Your task to perform on an android device: star an email in the gmail app Image 0: 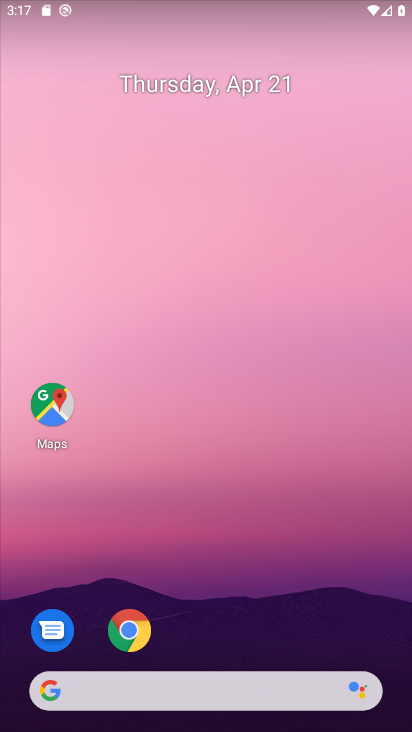
Step 0: drag from (186, 610) to (203, 161)
Your task to perform on an android device: star an email in the gmail app Image 1: 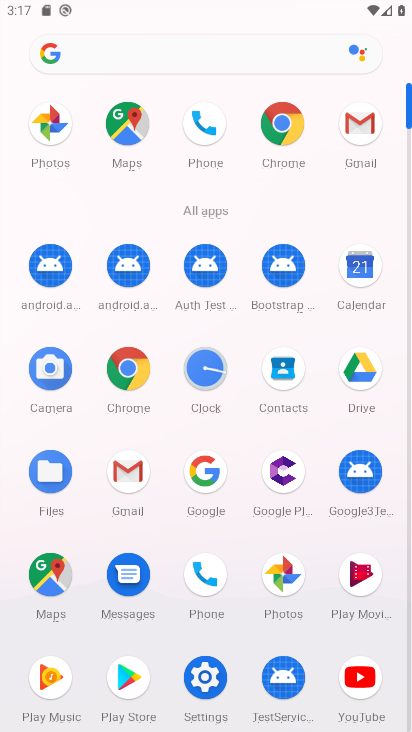
Step 1: click (115, 470)
Your task to perform on an android device: star an email in the gmail app Image 2: 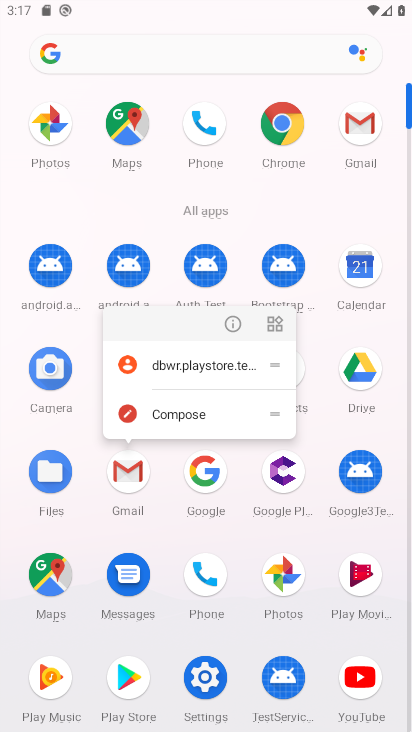
Step 2: click (232, 318)
Your task to perform on an android device: star an email in the gmail app Image 3: 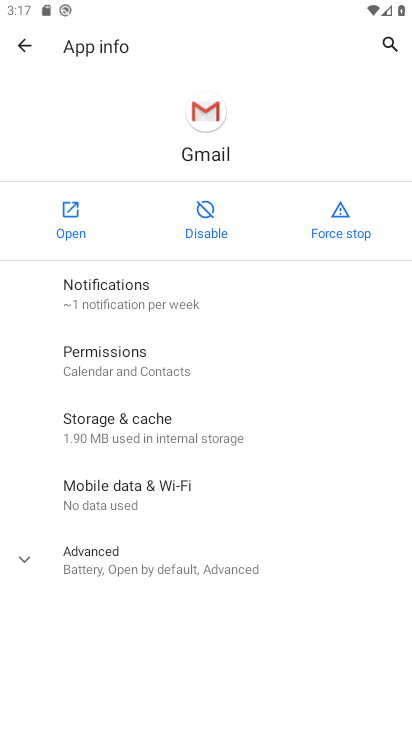
Step 3: click (61, 226)
Your task to perform on an android device: star an email in the gmail app Image 4: 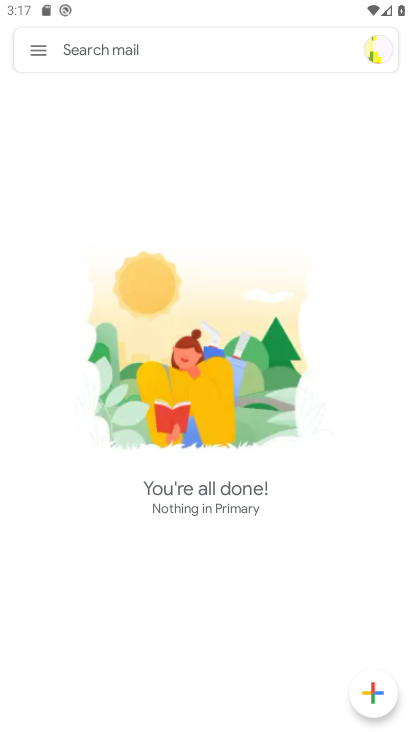
Step 4: drag from (204, 528) to (212, 150)
Your task to perform on an android device: star an email in the gmail app Image 5: 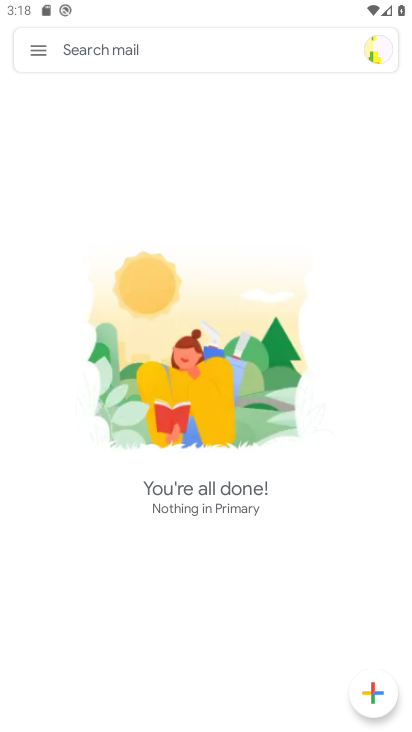
Step 5: click (212, 150)
Your task to perform on an android device: star an email in the gmail app Image 6: 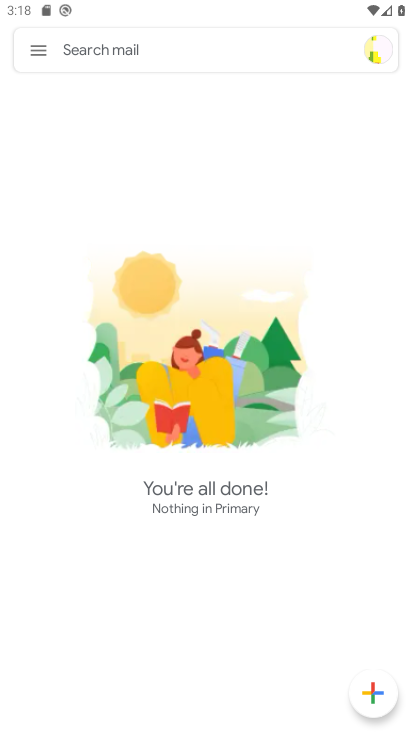
Step 6: click (36, 50)
Your task to perform on an android device: star an email in the gmail app Image 7: 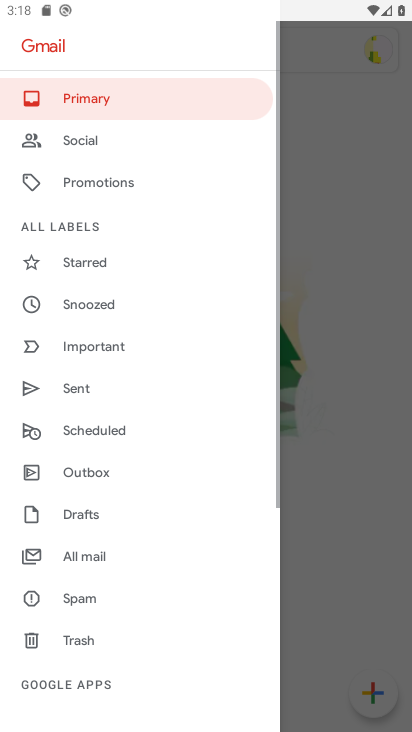
Step 7: drag from (187, 328) to (248, 93)
Your task to perform on an android device: star an email in the gmail app Image 8: 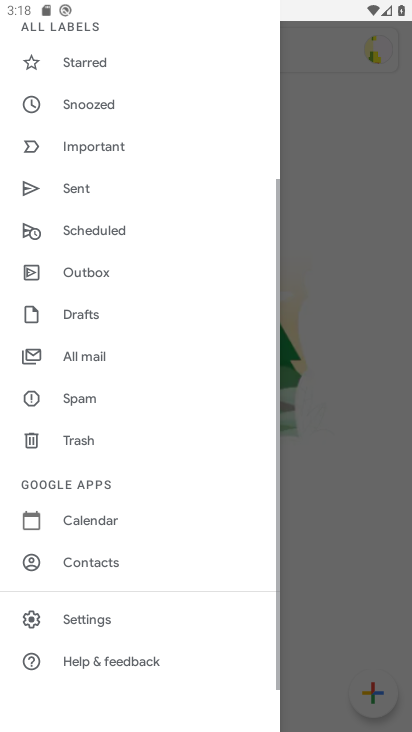
Step 8: drag from (81, 511) to (112, 284)
Your task to perform on an android device: star an email in the gmail app Image 9: 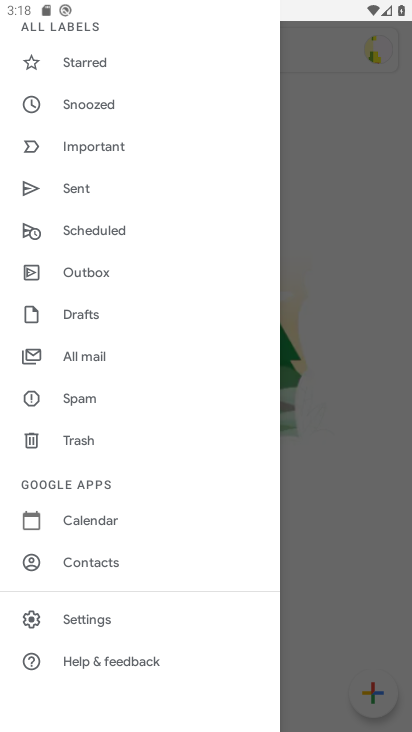
Step 9: drag from (149, 136) to (212, 596)
Your task to perform on an android device: star an email in the gmail app Image 10: 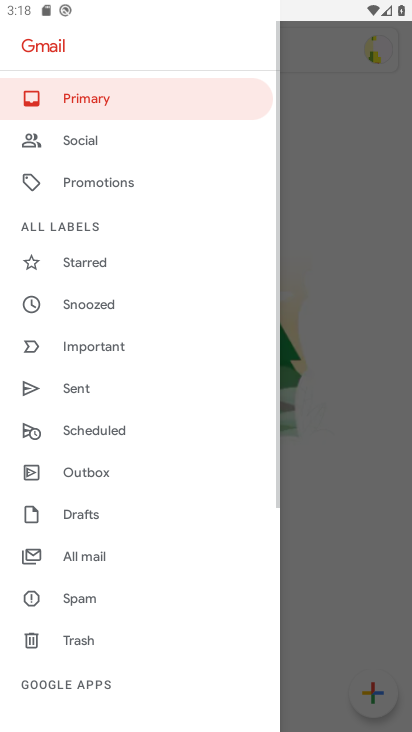
Step 10: click (109, 238)
Your task to perform on an android device: star an email in the gmail app Image 11: 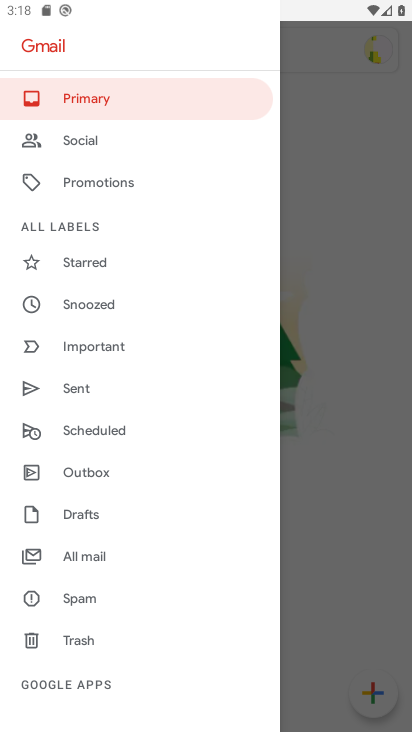
Step 11: click (104, 242)
Your task to perform on an android device: star an email in the gmail app Image 12: 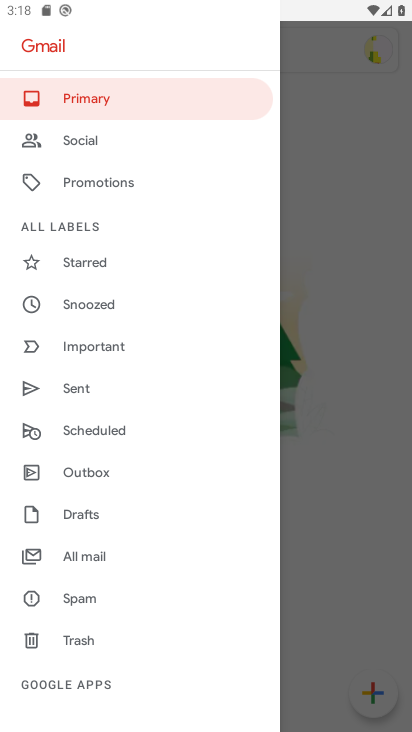
Step 12: click (114, 252)
Your task to perform on an android device: star an email in the gmail app Image 13: 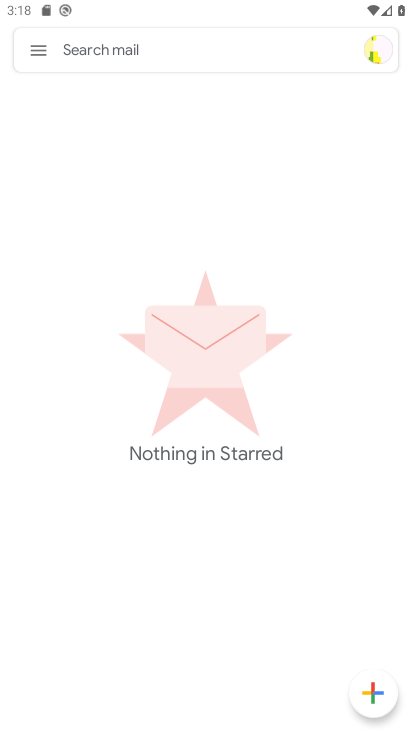
Step 13: drag from (153, 298) to (271, 649)
Your task to perform on an android device: star an email in the gmail app Image 14: 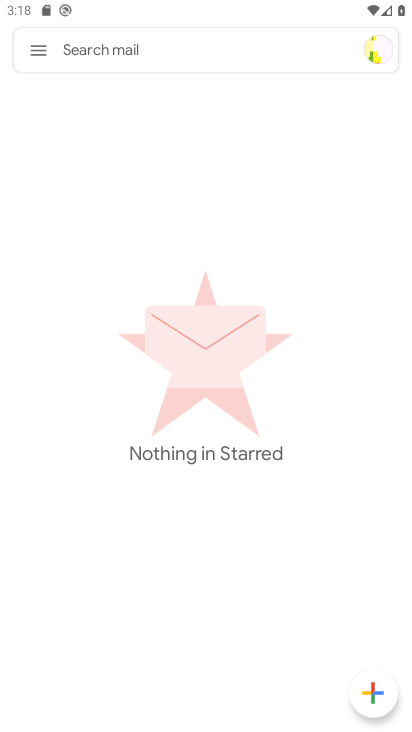
Step 14: drag from (219, 535) to (255, 157)
Your task to perform on an android device: star an email in the gmail app Image 15: 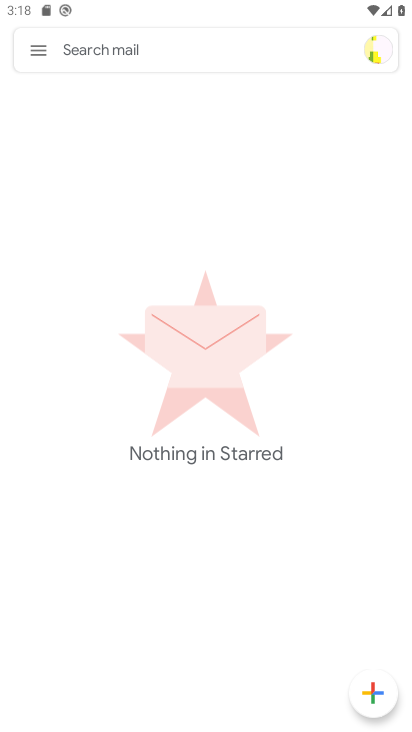
Step 15: drag from (189, 341) to (253, 728)
Your task to perform on an android device: star an email in the gmail app Image 16: 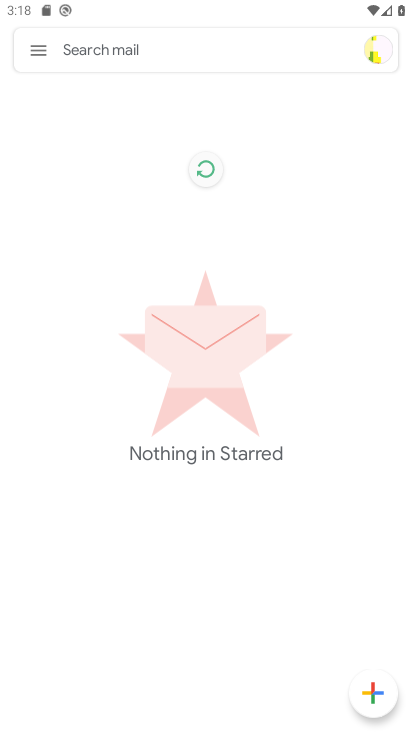
Step 16: drag from (280, 529) to (349, 529)
Your task to perform on an android device: star an email in the gmail app Image 17: 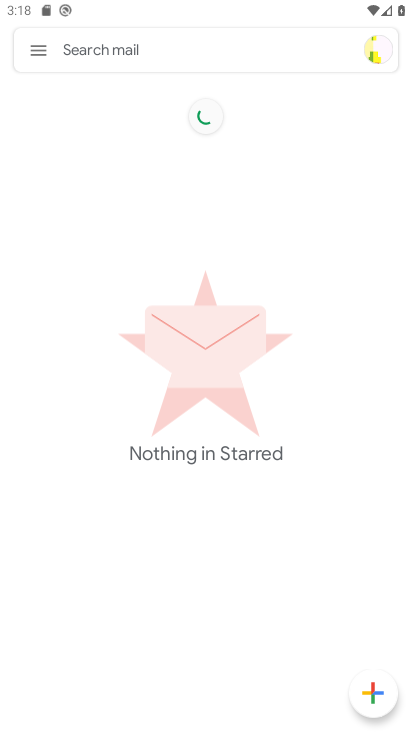
Step 17: drag from (169, 333) to (280, 496)
Your task to perform on an android device: star an email in the gmail app Image 18: 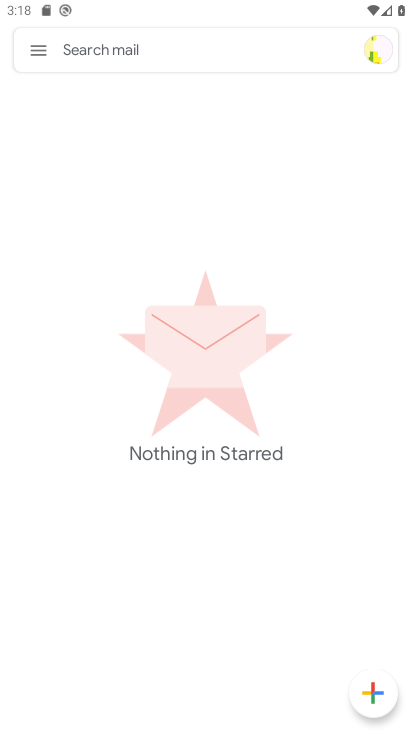
Step 18: drag from (141, 264) to (334, 584)
Your task to perform on an android device: star an email in the gmail app Image 19: 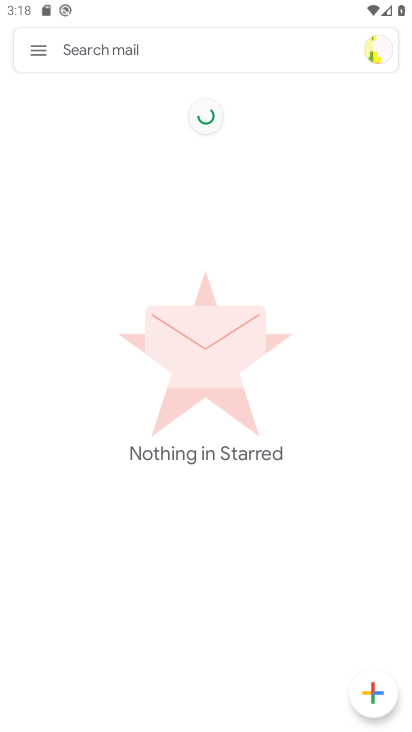
Step 19: click (292, 324)
Your task to perform on an android device: star an email in the gmail app Image 20: 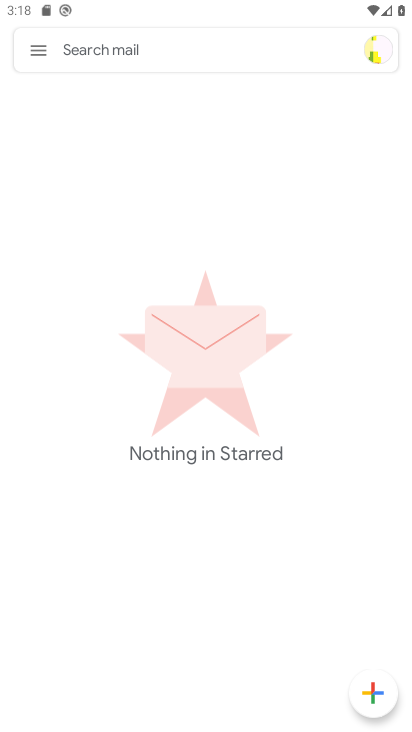
Step 20: click (41, 61)
Your task to perform on an android device: star an email in the gmail app Image 21: 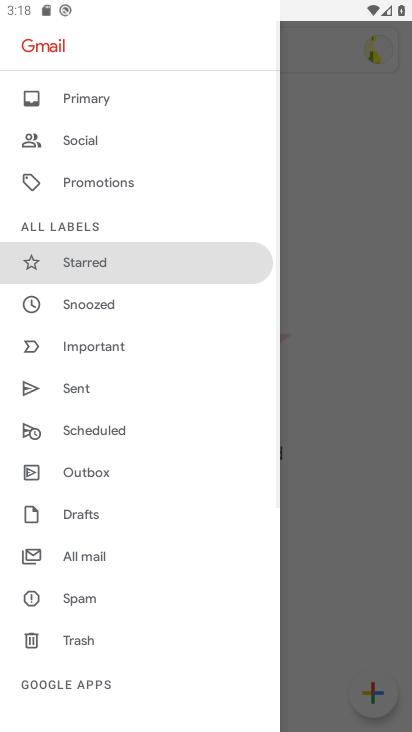
Step 21: click (92, 273)
Your task to perform on an android device: star an email in the gmail app Image 22: 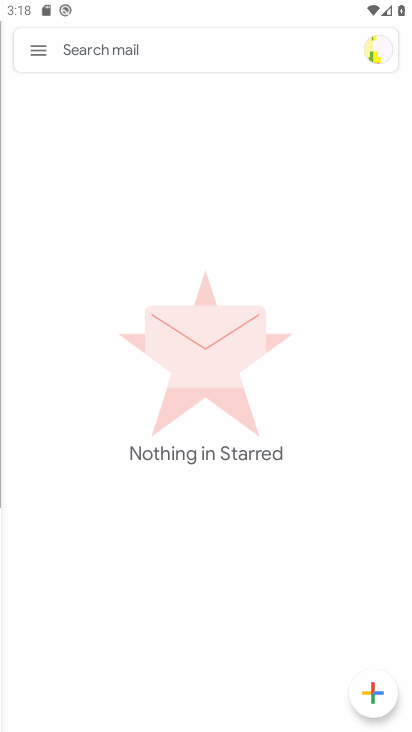
Step 22: click (314, 251)
Your task to perform on an android device: star an email in the gmail app Image 23: 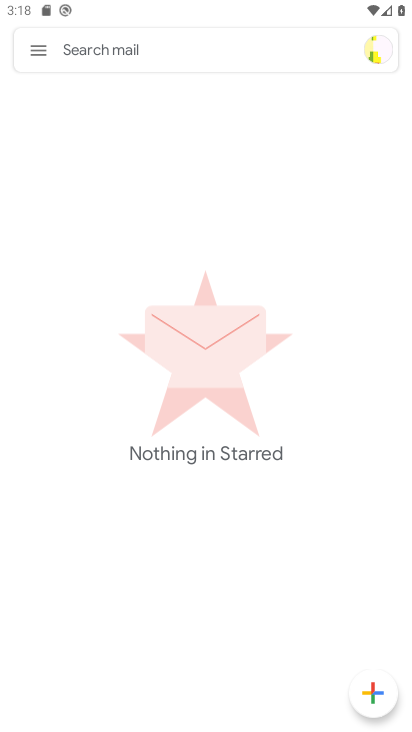
Step 23: drag from (157, 244) to (163, 415)
Your task to perform on an android device: star an email in the gmail app Image 24: 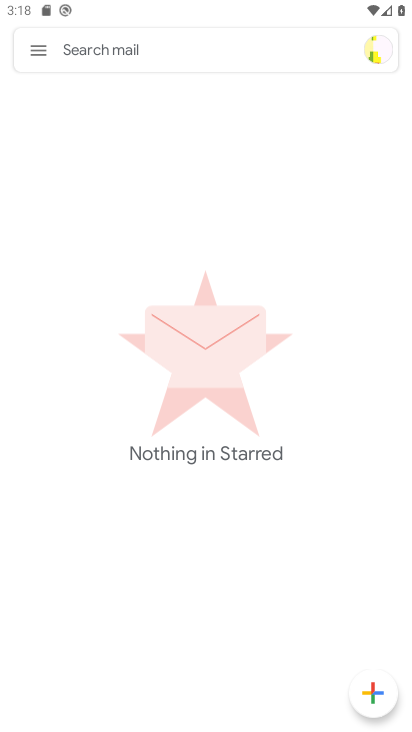
Step 24: click (299, 321)
Your task to perform on an android device: star an email in the gmail app Image 25: 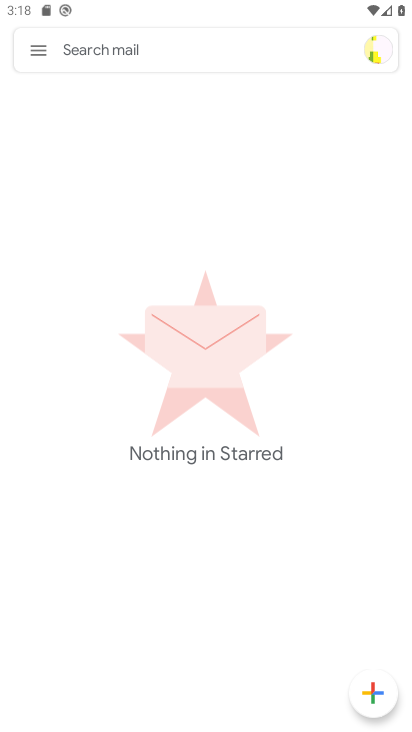
Step 25: drag from (260, 567) to (317, 333)
Your task to perform on an android device: star an email in the gmail app Image 26: 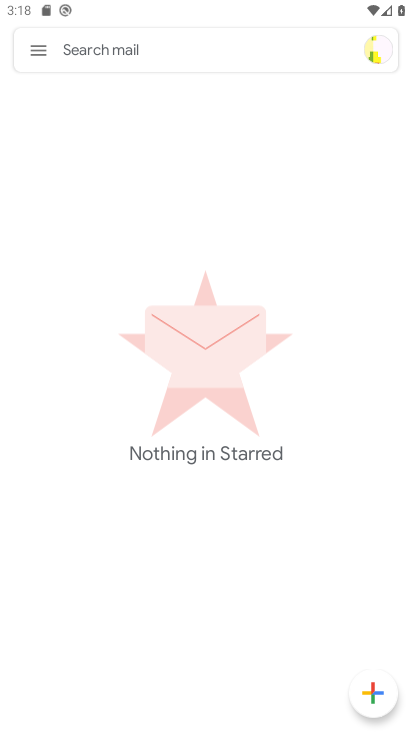
Step 26: drag from (275, 499) to (279, 215)
Your task to perform on an android device: star an email in the gmail app Image 27: 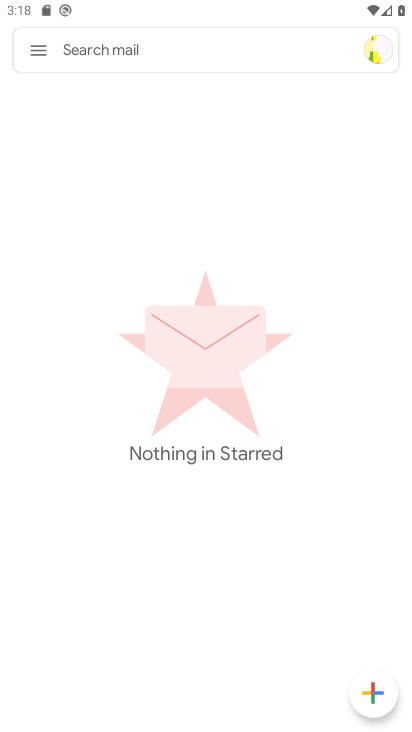
Step 27: drag from (298, 399) to (310, 225)
Your task to perform on an android device: star an email in the gmail app Image 28: 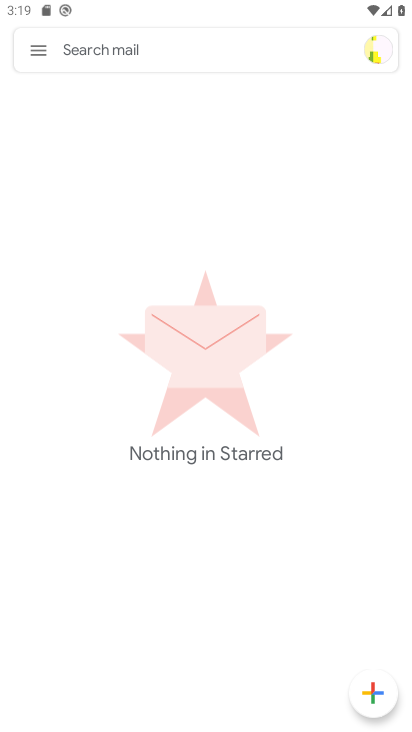
Step 28: drag from (234, 246) to (234, 194)
Your task to perform on an android device: star an email in the gmail app Image 29: 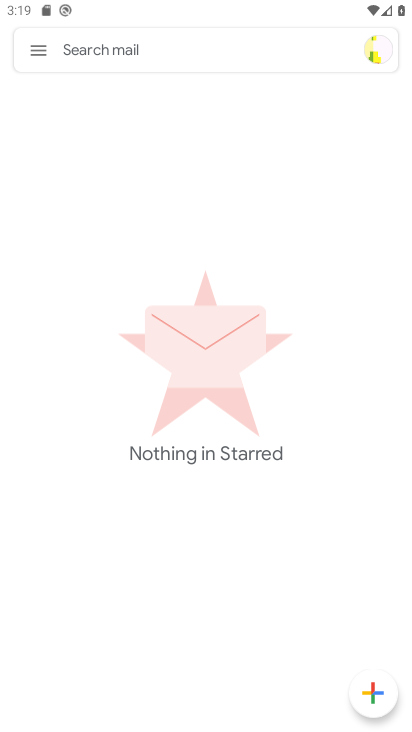
Step 29: drag from (262, 472) to (327, 267)
Your task to perform on an android device: star an email in the gmail app Image 30: 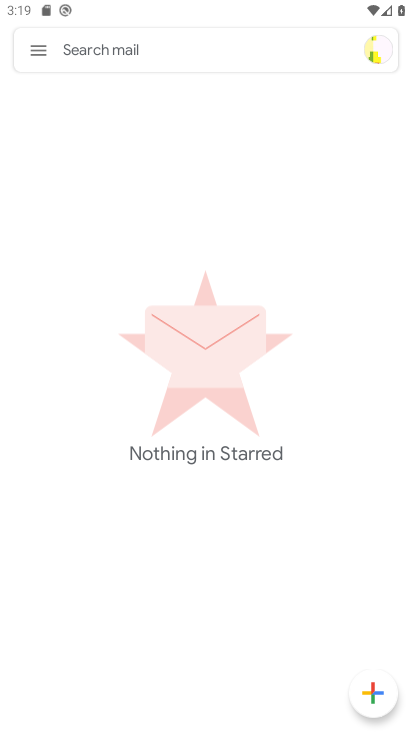
Step 30: drag from (317, 402) to (316, 313)
Your task to perform on an android device: star an email in the gmail app Image 31: 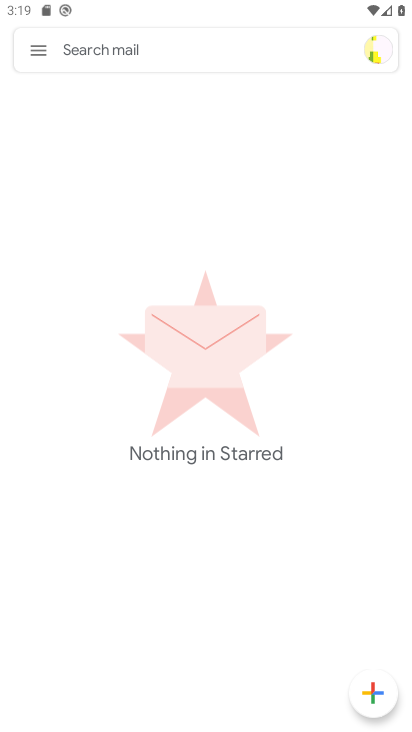
Step 31: click (28, 45)
Your task to perform on an android device: star an email in the gmail app Image 32: 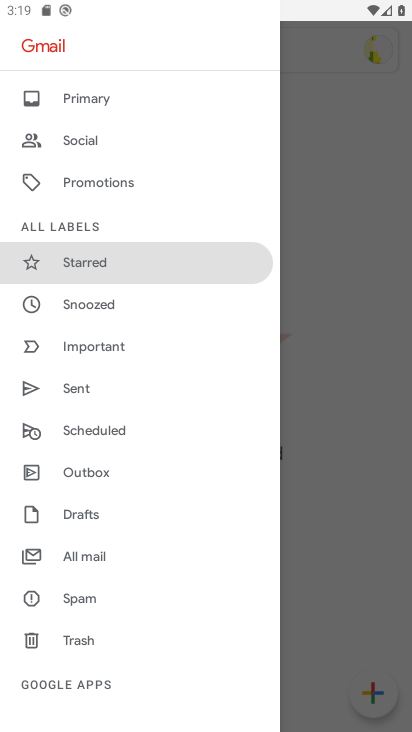
Step 32: click (148, 267)
Your task to perform on an android device: star an email in the gmail app Image 33: 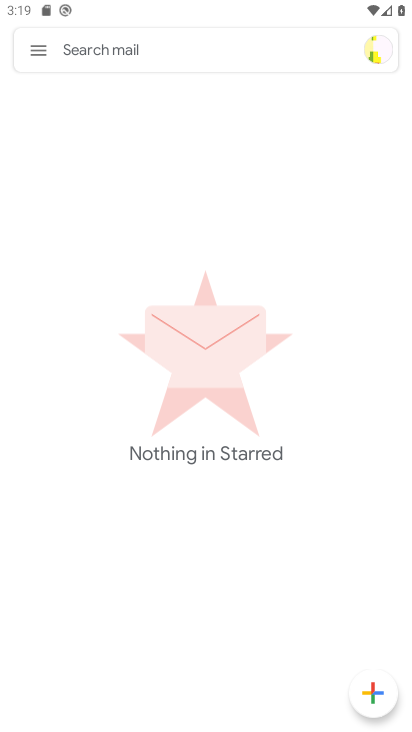
Step 33: task complete